Your task to perform on an android device: open wifi settings Image 0: 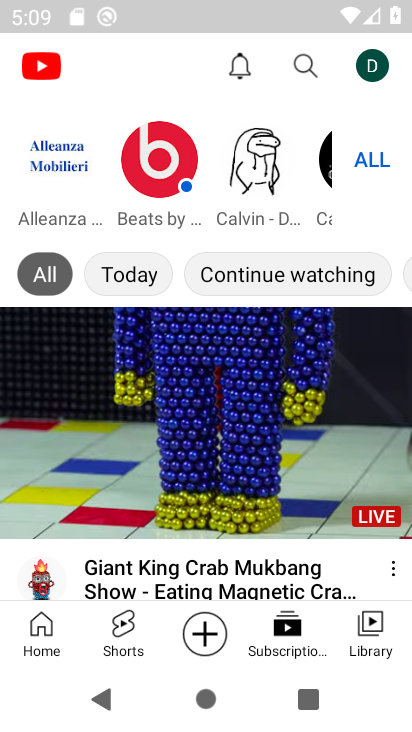
Step 0: press home button
Your task to perform on an android device: open wifi settings Image 1: 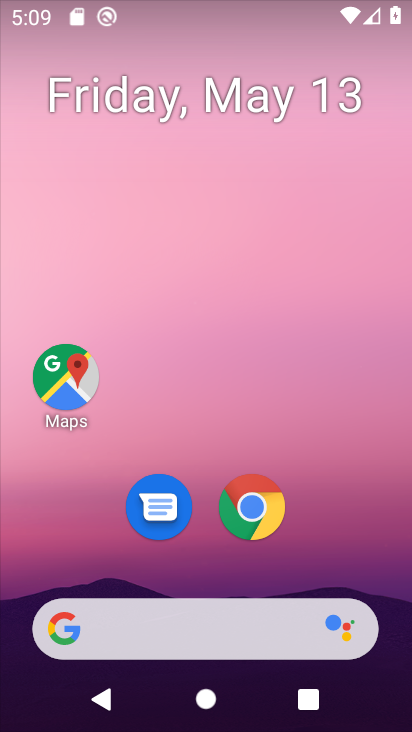
Step 1: drag from (315, 541) to (226, 68)
Your task to perform on an android device: open wifi settings Image 2: 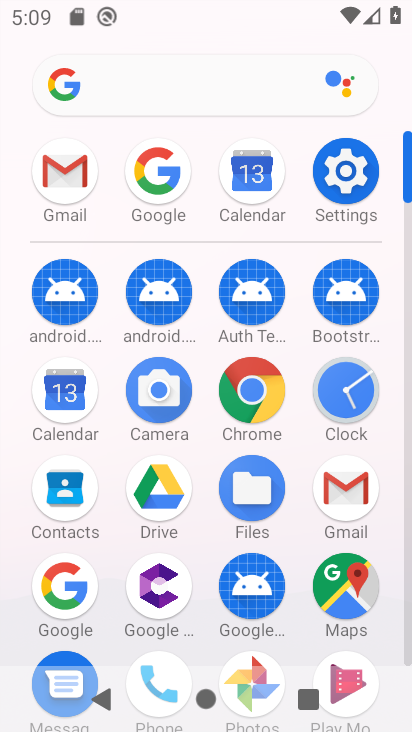
Step 2: click (338, 178)
Your task to perform on an android device: open wifi settings Image 3: 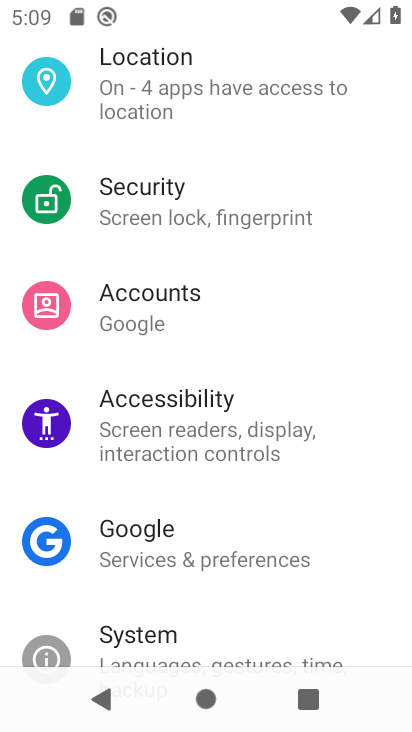
Step 3: drag from (234, 146) to (222, 650)
Your task to perform on an android device: open wifi settings Image 4: 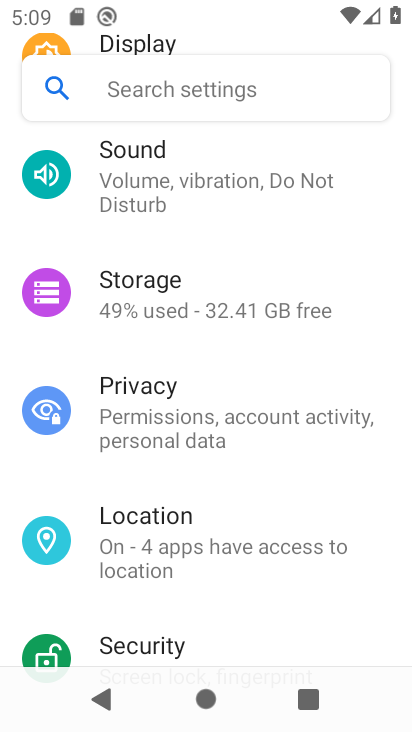
Step 4: drag from (196, 168) to (183, 689)
Your task to perform on an android device: open wifi settings Image 5: 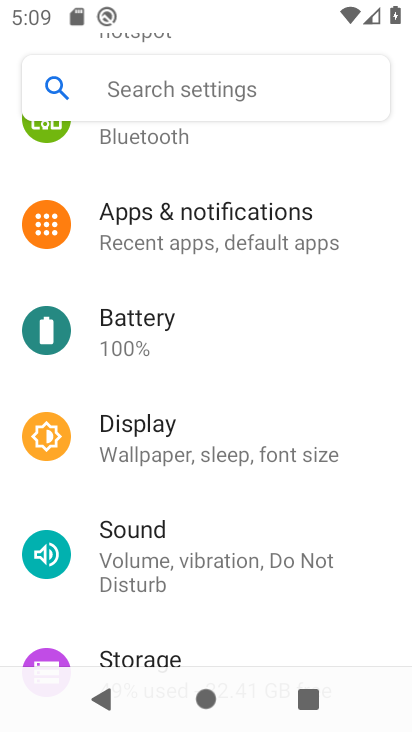
Step 5: drag from (223, 232) to (218, 731)
Your task to perform on an android device: open wifi settings Image 6: 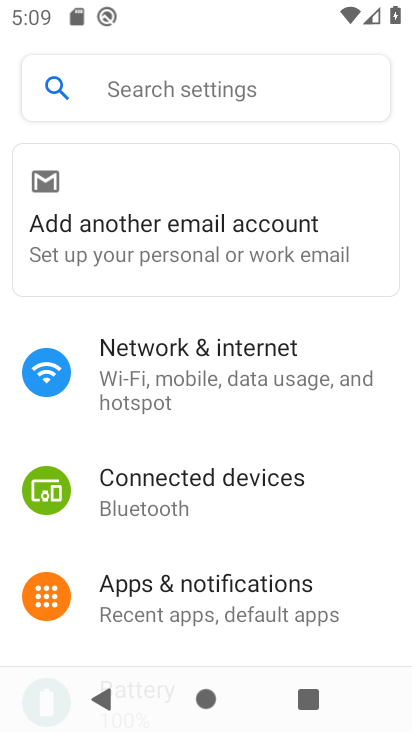
Step 6: click (189, 345)
Your task to perform on an android device: open wifi settings Image 7: 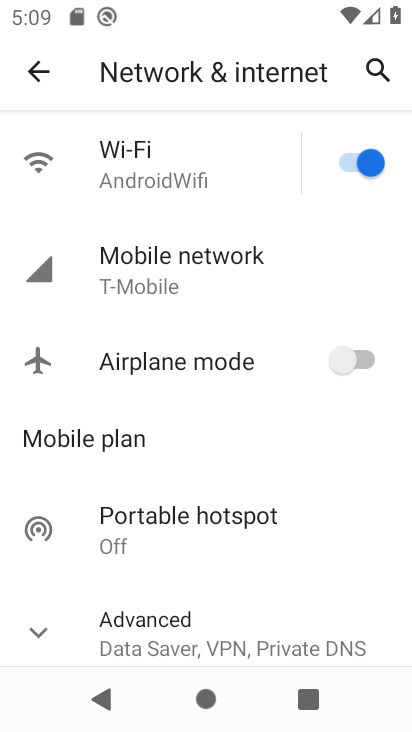
Step 7: click (147, 157)
Your task to perform on an android device: open wifi settings Image 8: 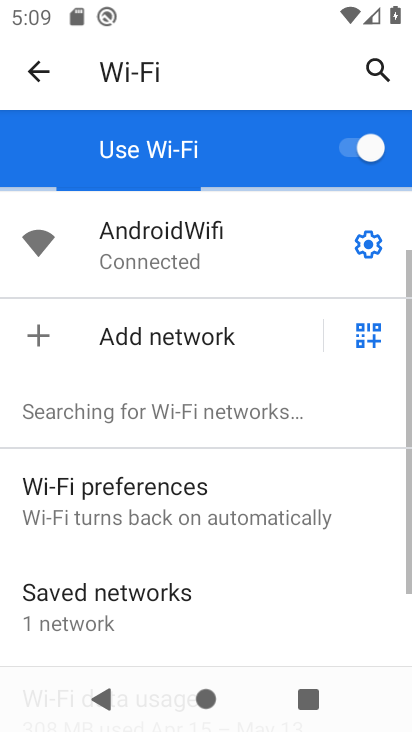
Step 8: task complete